Your task to perform on an android device: open wifi settings Image 0: 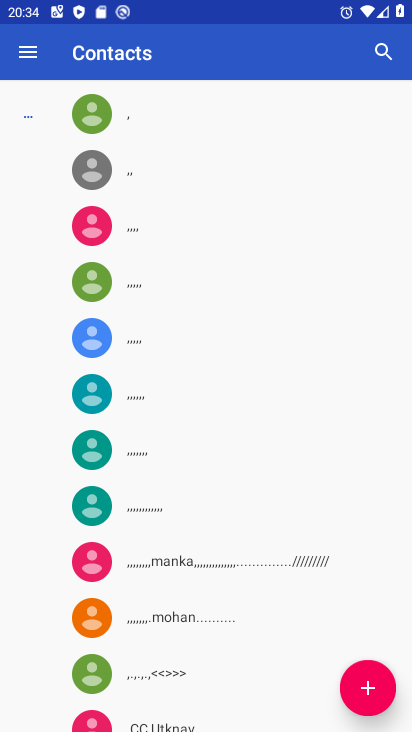
Step 0: drag from (184, 17) to (96, 692)
Your task to perform on an android device: open wifi settings Image 1: 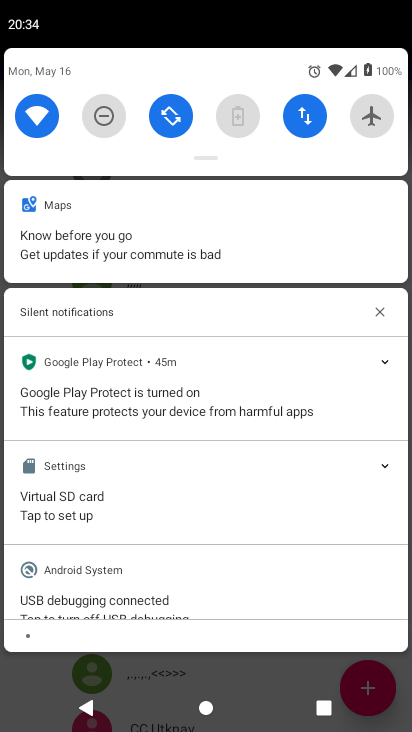
Step 1: click (33, 117)
Your task to perform on an android device: open wifi settings Image 2: 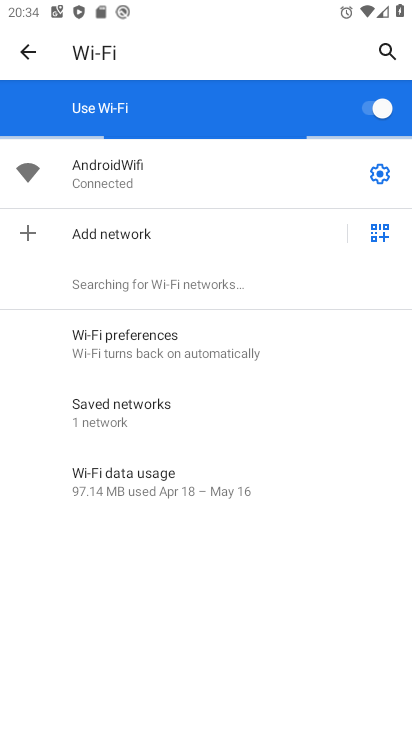
Step 2: task complete